Your task to perform on an android device: open wifi settings Image 0: 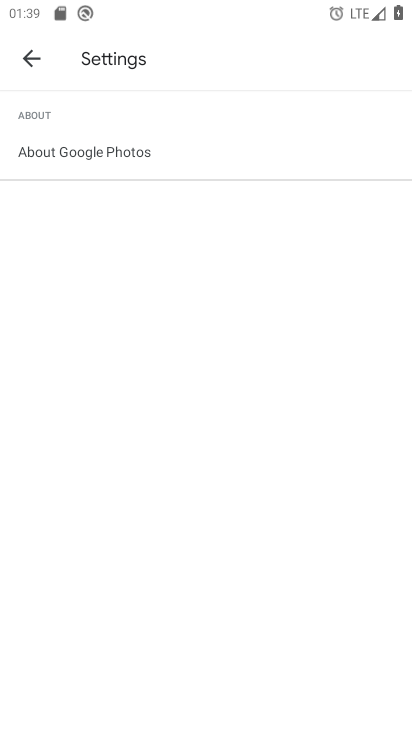
Step 0: press home button
Your task to perform on an android device: open wifi settings Image 1: 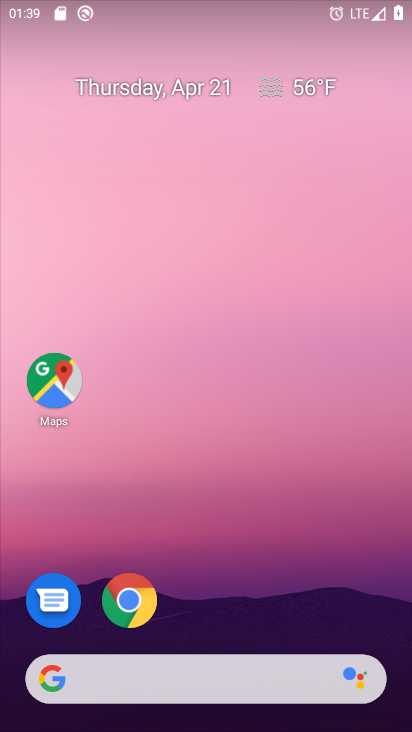
Step 1: drag from (235, 590) to (303, 108)
Your task to perform on an android device: open wifi settings Image 2: 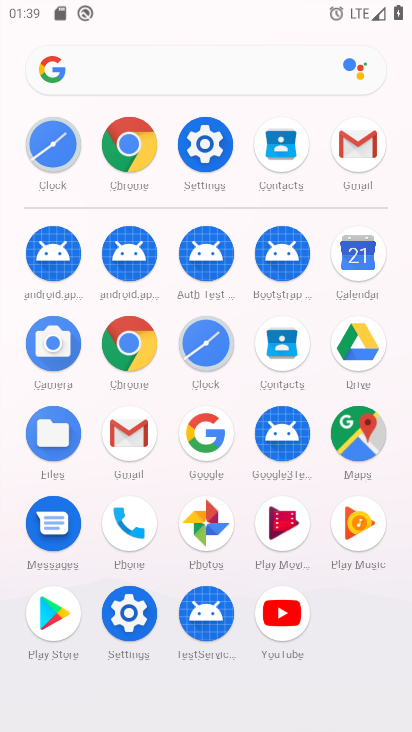
Step 2: click (209, 141)
Your task to perform on an android device: open wifi settings Image 3: 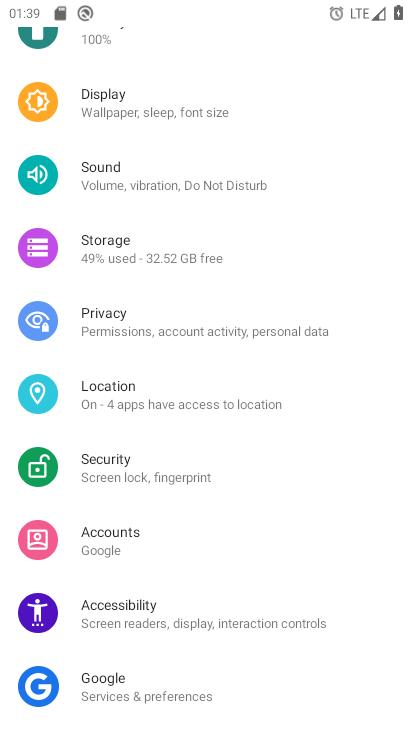
Step 3: drag from (191, 268) to (173, 619)
Your task to perform on an android device: open wifi settings Image 4: 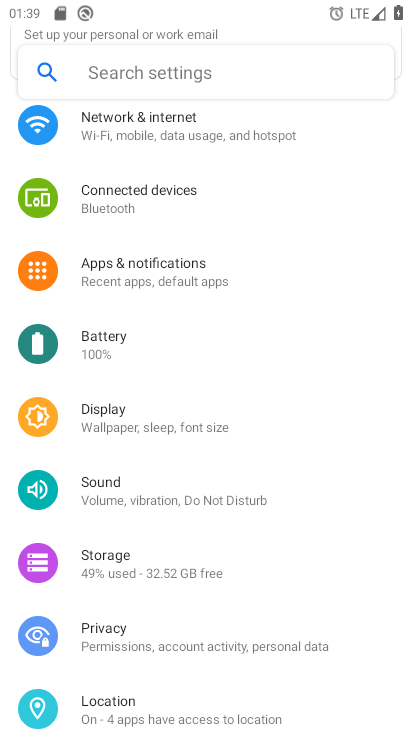
Step 4: click (241, 130)
Your task to perform on an android device: open wifi settings Image 5: 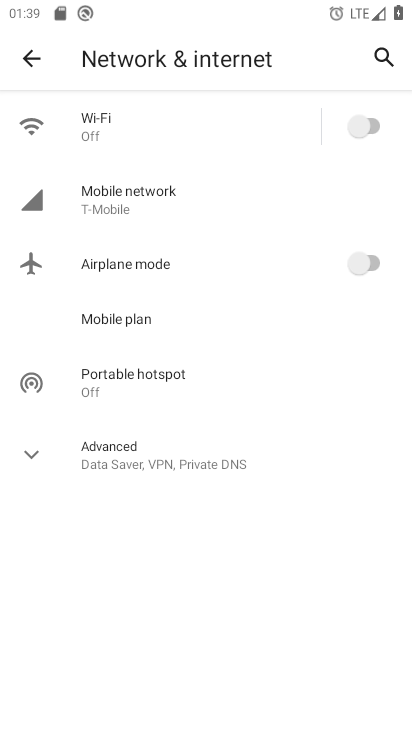
Step 5: click (137, 123)
Your task to perform on an android device: open wifi settings Image 6: 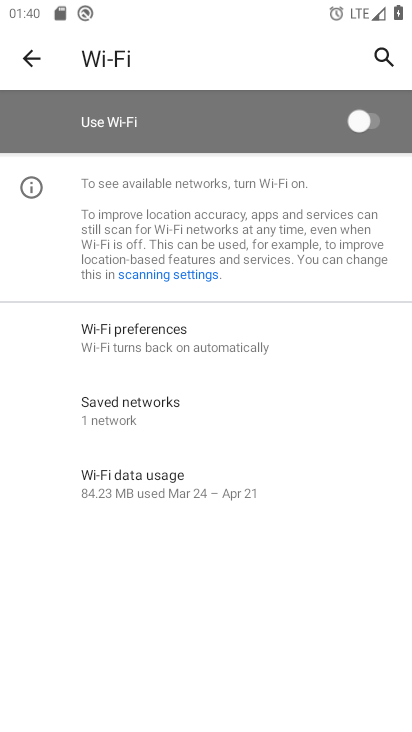
Step 6: click (373, 116)
Your task to perform on an android device: open wifi settings Image 7: 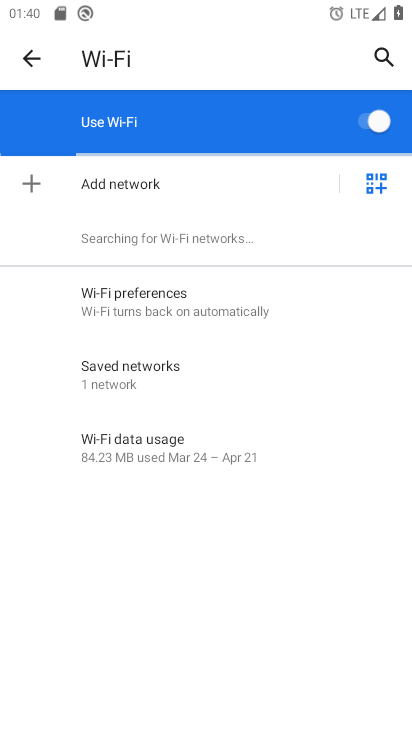
Step 7: task complete